Your task to perform on an android device: turn on sleep mode Image 0: 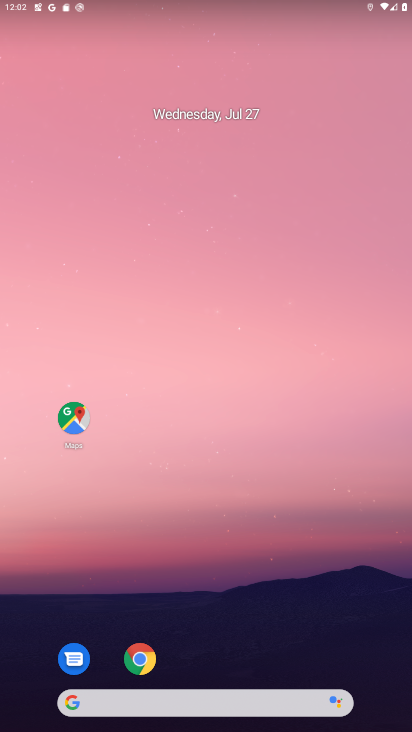
Step 0: drag from (300, 699) to (250, 30)
Your task to perform on an android device: turn on sleep mode Image 1: 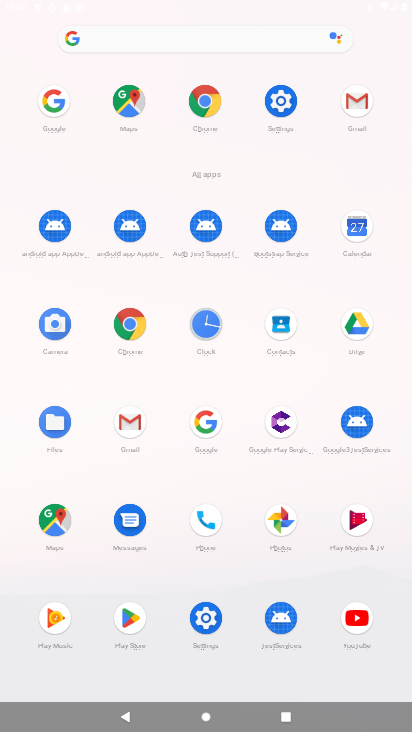
Step 1: click (274, 110)
Your task to perform on an android device: turn on sleep mode Image 2: 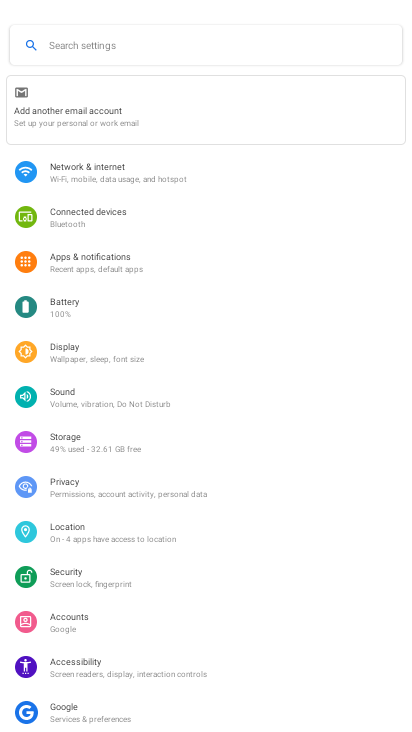
Step 2: click (102, 351)
Your task to perform on an android device: turn on sleep mode Image 3: 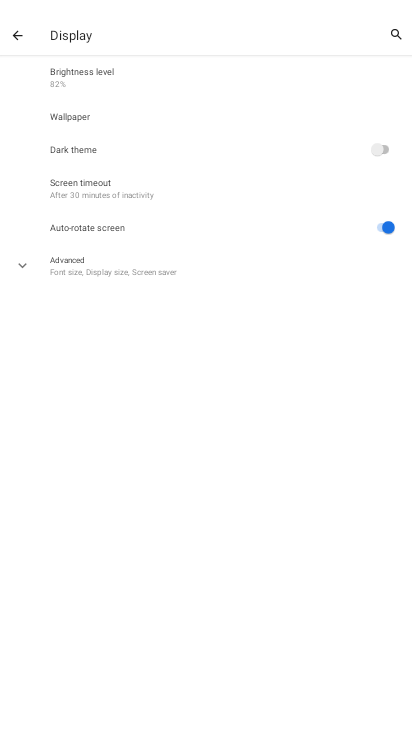
Step 3: task complete